Your task to perform on an android device: Open the map Image 0: 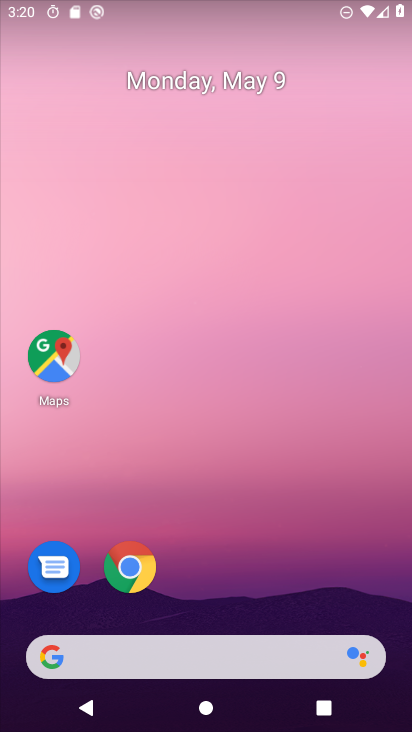
Step 0: click (40, 356)
Your task to perform on an android device: Open the map Image 1: 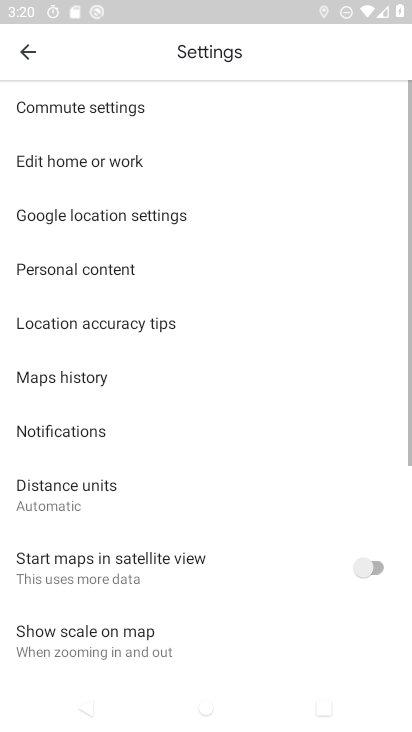
Step 1: click (23, 51)
Your task to perform on an android device: Open the map Image 2: 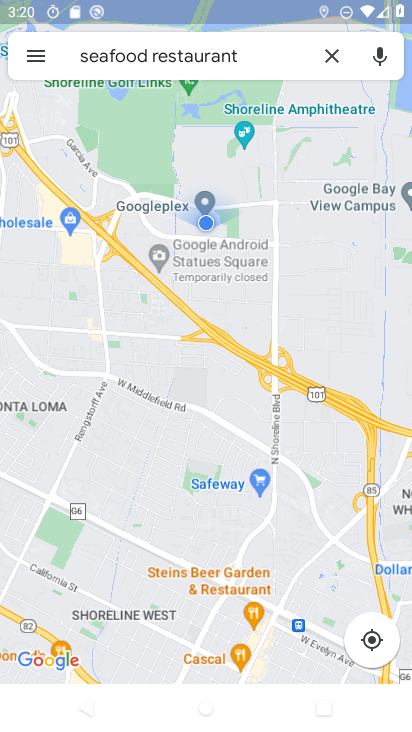
Step 2: task complete